Your task to perform on an android device: open device folders in google photos Image 0: 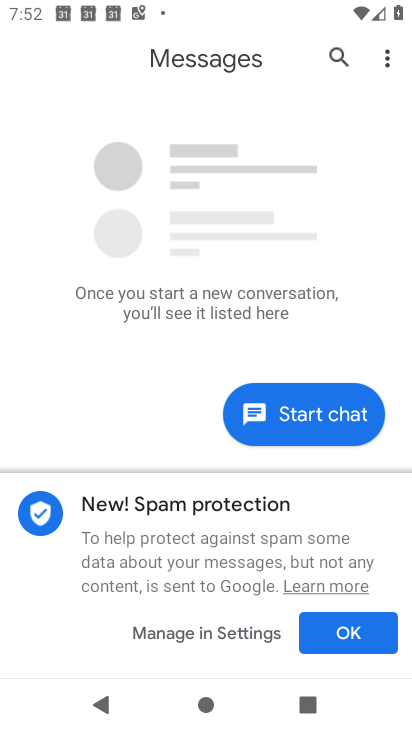
Step 0: press home button
Your task to perform on an android device: open device folders in google photos Image 1: 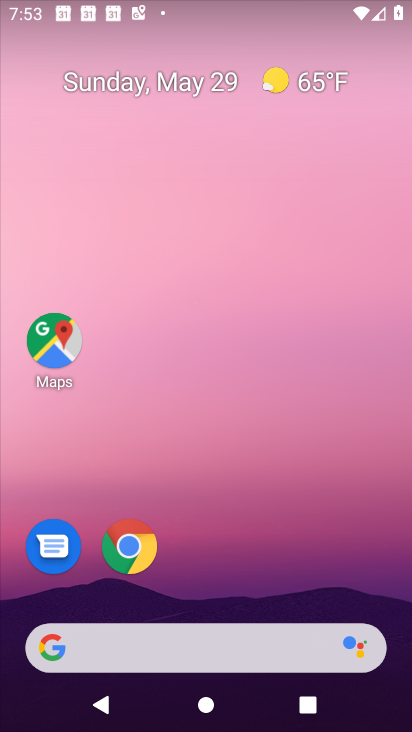
Step 1: drag from (227, 613) to (270, 214)
Your task to perform on an android device: open device folders in google photos Image 2: 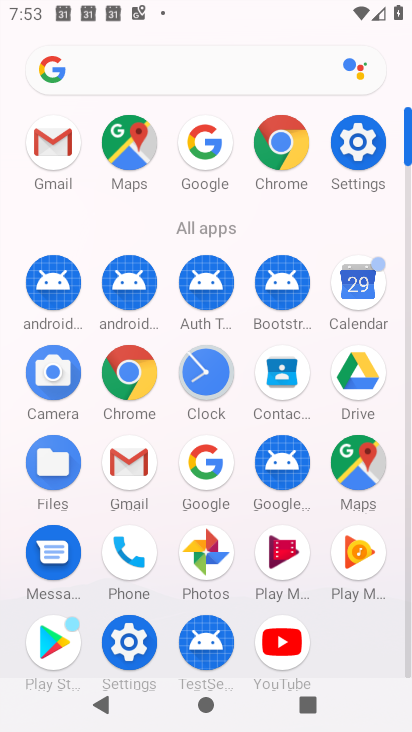
Step 2: click (203, 554)
Your task to perform on an android device: open device folders in google photos Image 3: 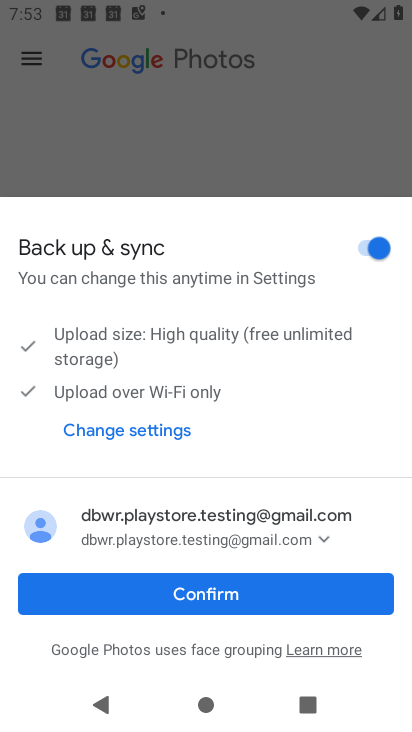
Step 3: click (225, 596)
Your task to perform on an android device: open device folders in google photos Image 4: 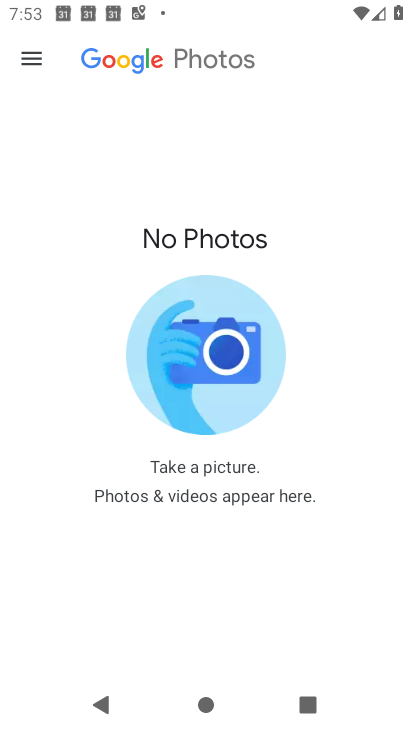
Step 4: click (37, 59)
Your task to perform on an android device: open device folders in google photos Image 5: 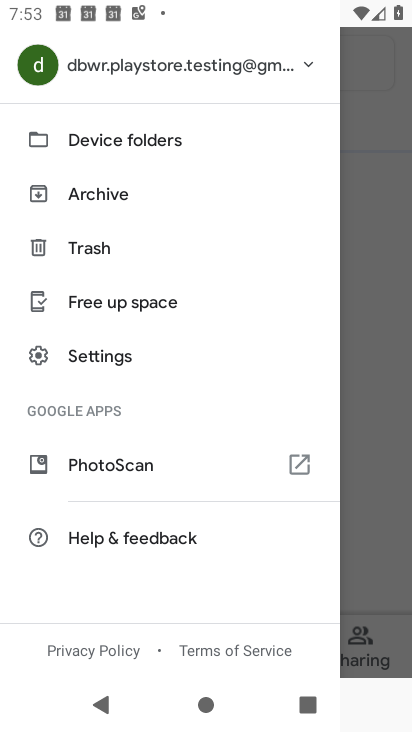
Step 5: click (101, 137)
Your task to perform on an android device: open device folders in google photos Image 6: 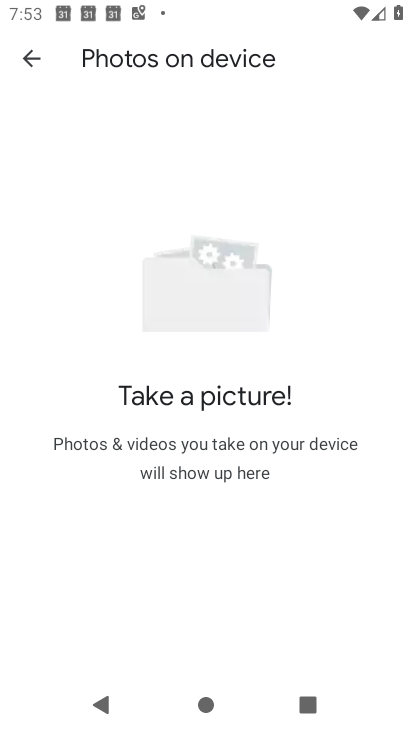
Step 6: task complete